Your task to perform on an android device: turn on location history Image 0: 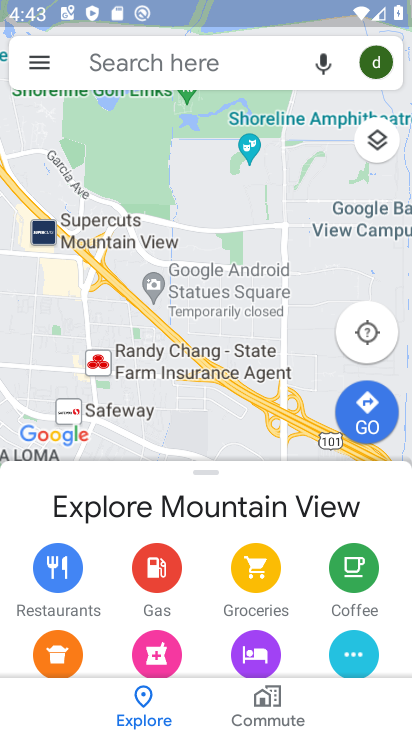
Step 0: press home button
Your task to perform on an android device: turn on location history Image 1: 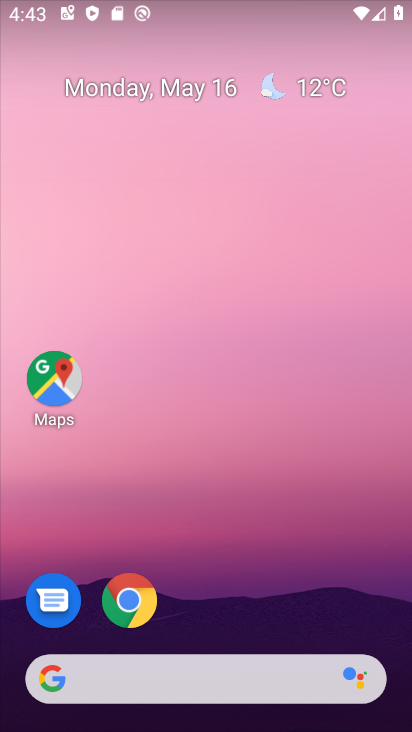
Step 1: drag from (197, 551) to (197, 381)
Your task to perform on an android device: turn on location history Image 2: 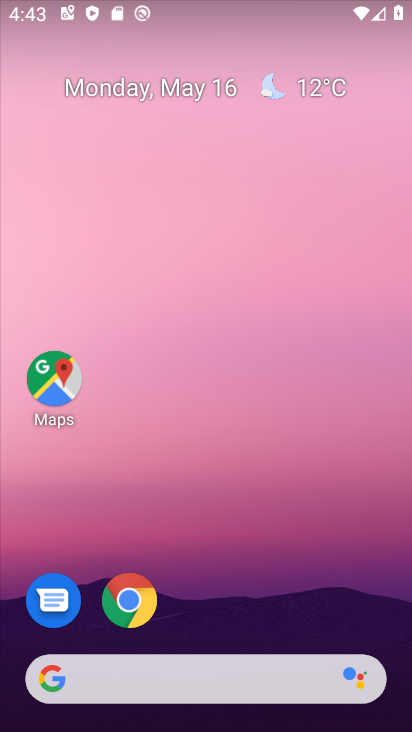
Step 2: drag from (197, 616) to (197, 354)
Your task to perform on an android device: turn on location history Image 3: 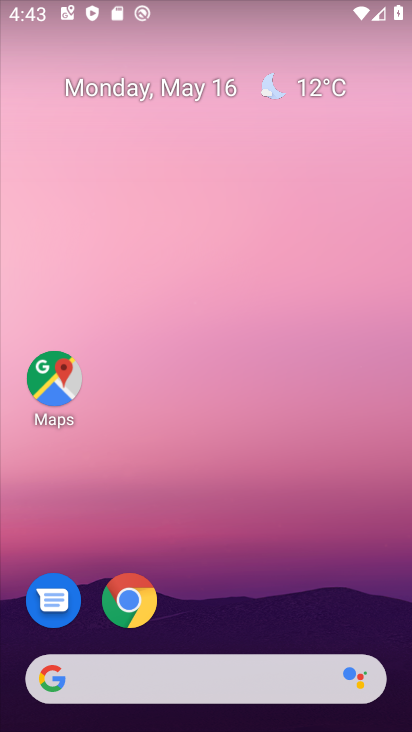
Step 3: drag from (244, 648) to (240, 341)
Your task to perform on an android device: turn on location history Image 4: 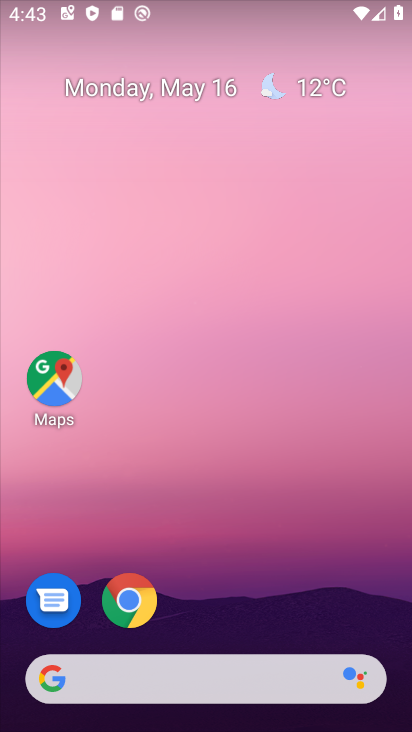
Step 4: drag from (249, 666) to (286, 287)
Your task to perform on an android device: turn on location history Image 5: 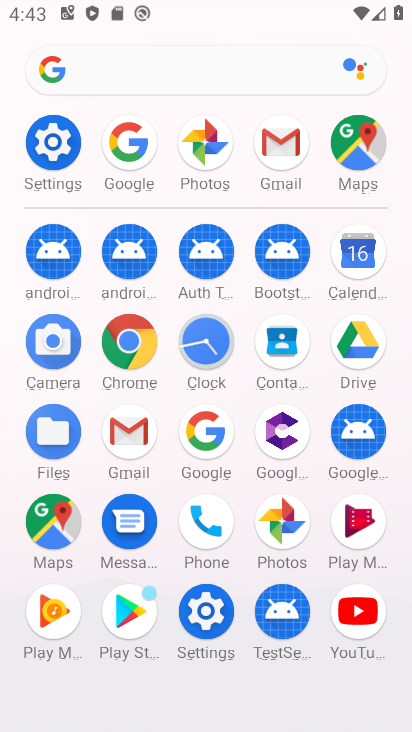
Step 5: click (206, 615)
Your task to perform on an android device: turn on location history Image 6: 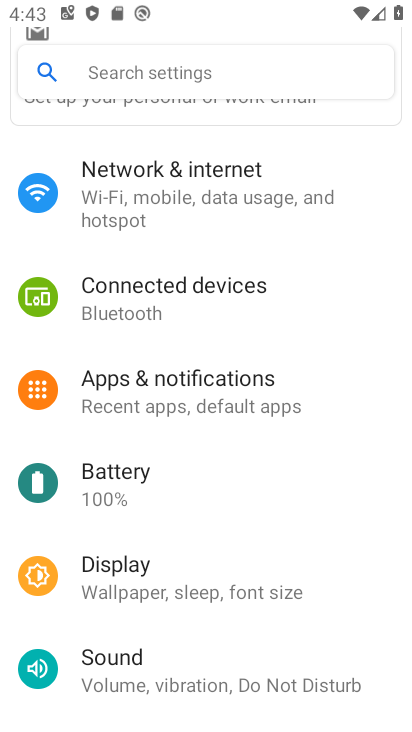
Step 6: drag from (124, 628) to (134, 380)
Your task to perform on an android device: turn on location history Image 7: 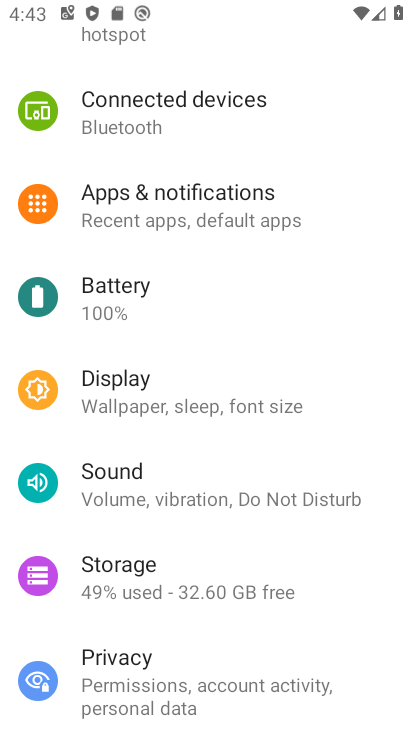
Step 7: drag from (106, 697) to (139, 416)
Your task to perform on an android device: turn on location history Image 8: 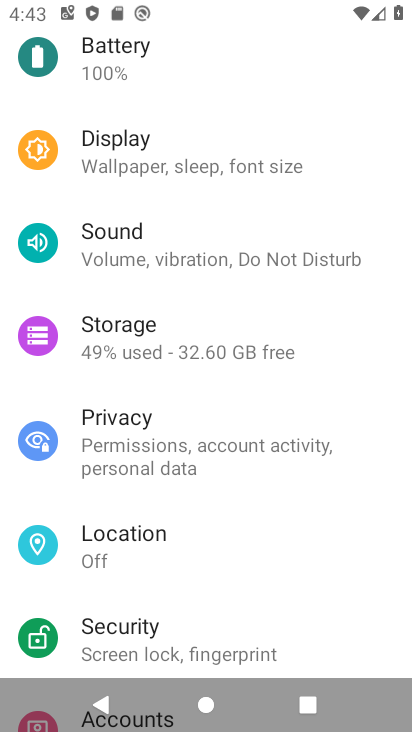
Step 8: click (143, 537)
Your task to perform on an android device: turn on location history Image 9: 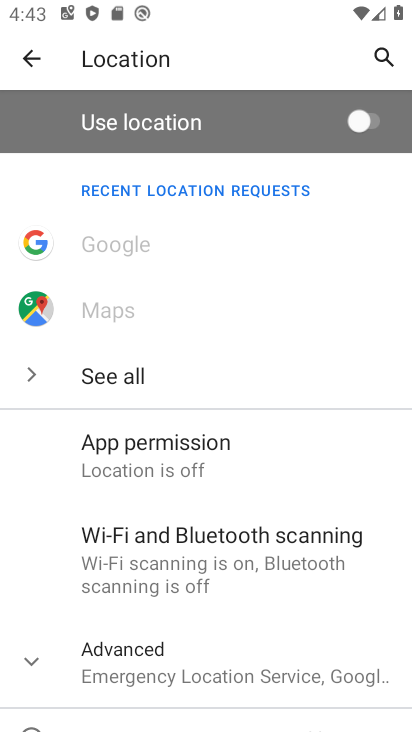
Step 9: click (376, 124)
Your task to perform on an android device: turn on location history Image 10: 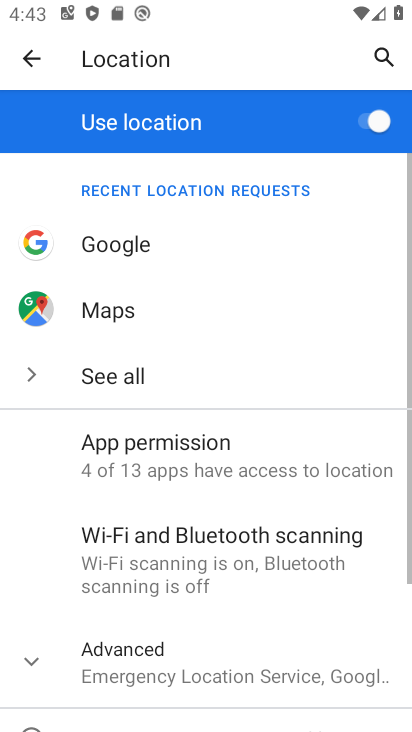
Step 10: click (119, 666)
Your task to perform on an android device: turn on location history Image 11: 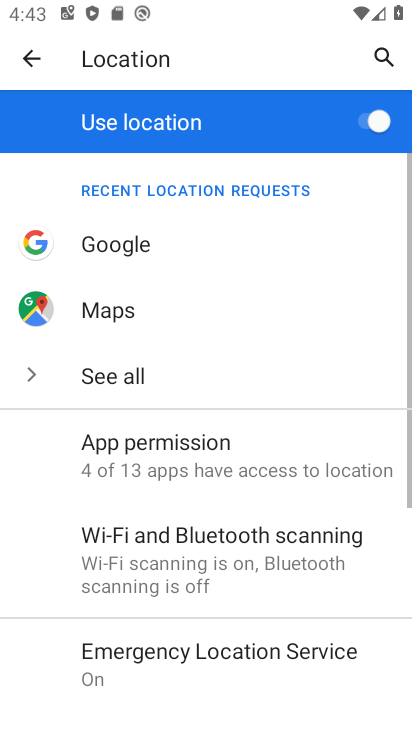
Step 11: drag from (195, 685) to (232, 414)
Your task to perform on an android device: turn on location history Image 12: 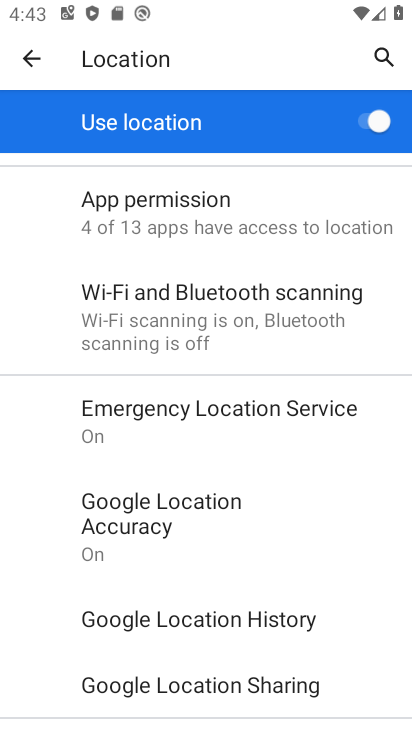
Step 12: click (263, 626)
Your task to perform on an android device: turn on location history Image 13: 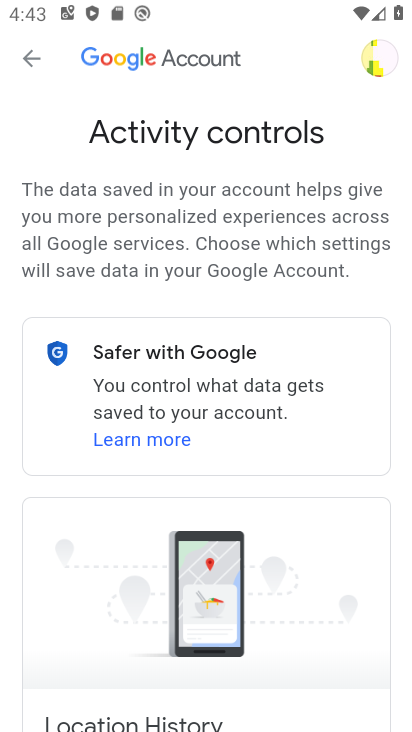
Step 13: task complete